Your task to perform on an android device: turn off airplane mode Image 0: 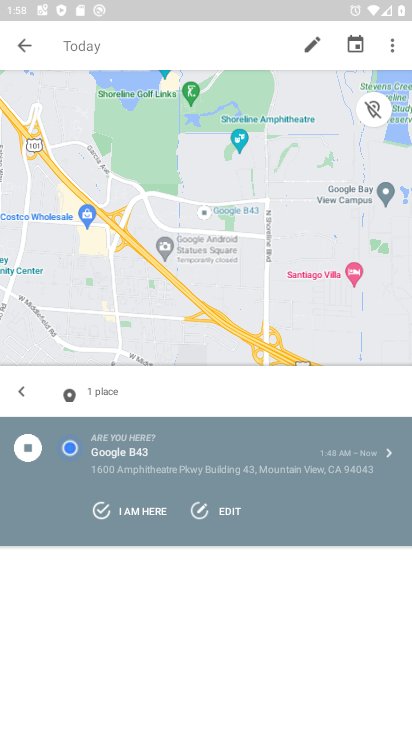
Step 0: press home button
Your task to perform on an android device: turn off airplane mode Image 1: 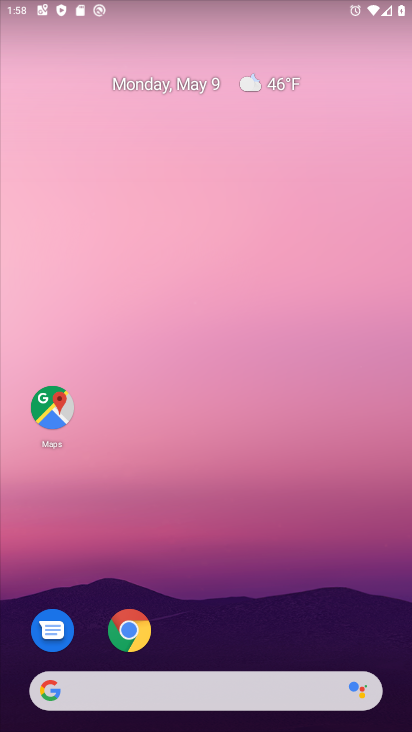
Step 1: drag from (312, 704) to (289, 165)
Your task to perform on an android device: turn off airplane mode Image 2: 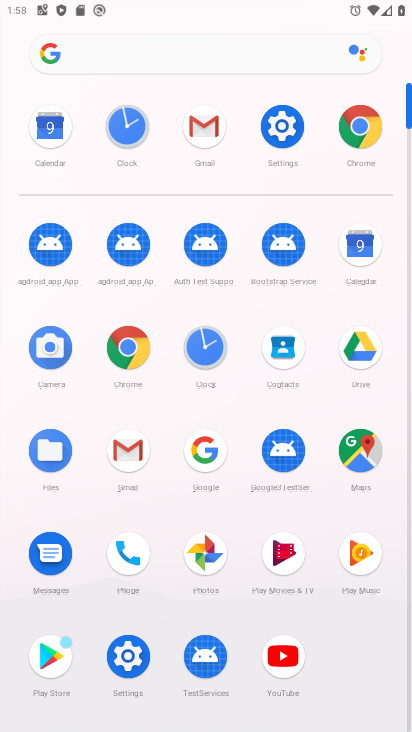
Step 2: click (286, 122)
Your task to perform on an android device: turn off airplane mode Image 3: 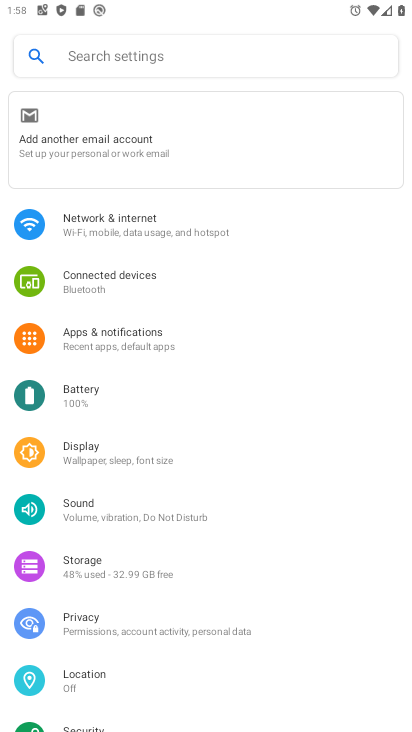
Step 3: click (156, 220)
Your task to perform on an android device: turn off airplane mode Image 4: 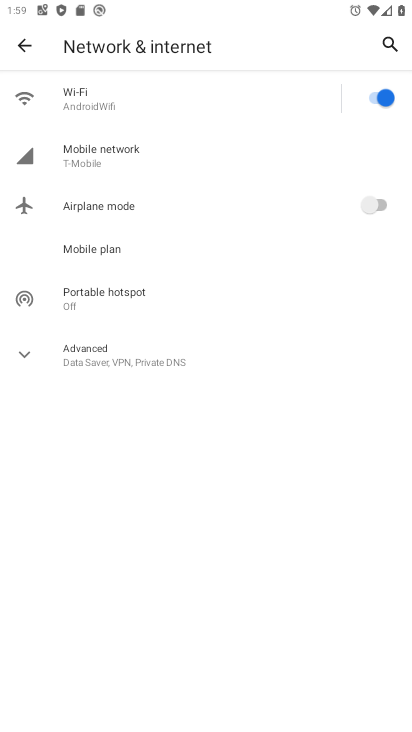
Step 4: click (356, 202)
Your task to perform on an android device: turn off airplane mode Image 5: 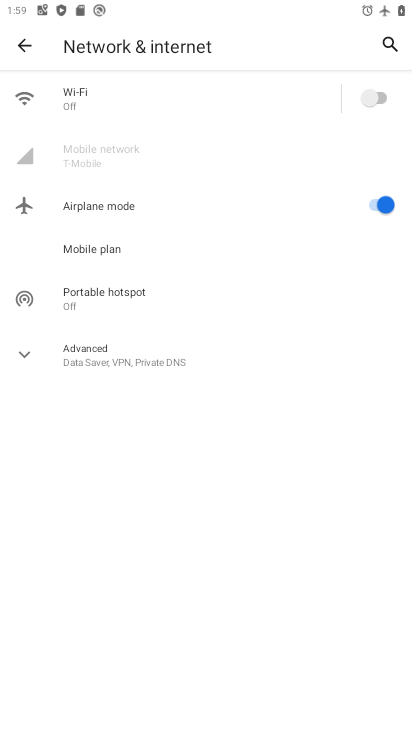
Step 5: click (360, 199)
Your task to perform on an android device: turn off airplane mode Image 6: 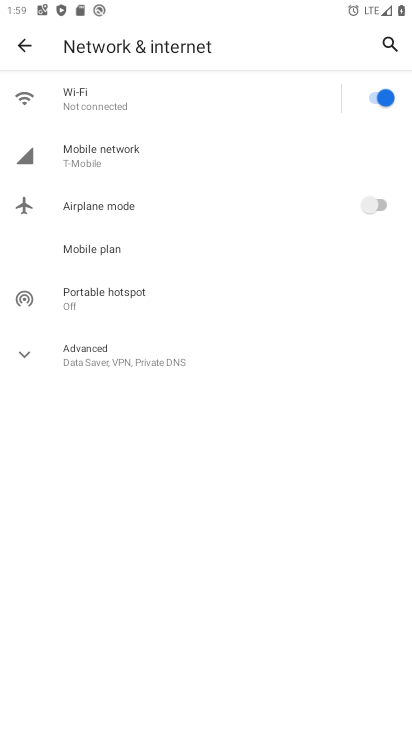
Step 6: task complete